Your task to perform on an android device: Search for the new nike shoes on Target Image 0: 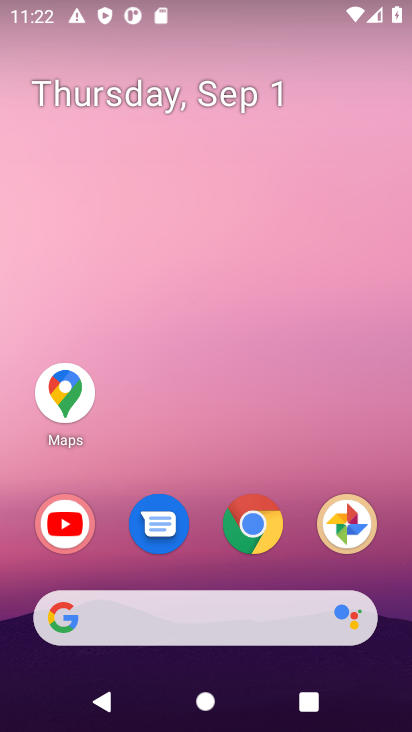
Step 0: click (256, 525)
Your task to perform on an android device: Search for the new nike shoes on Target Image 1: 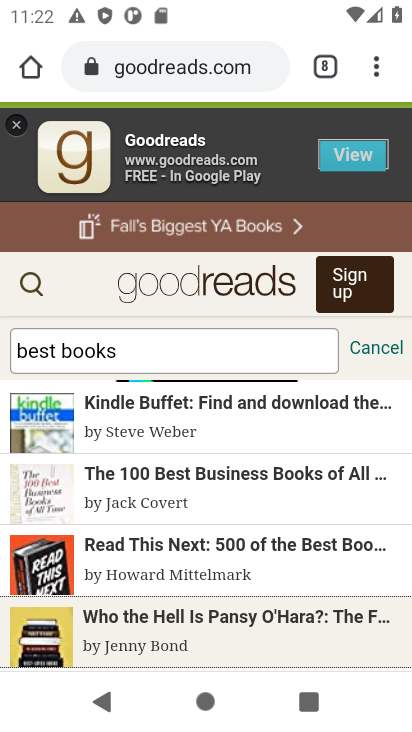
Step 1: click (327, 73)
Your task to perform on an android device: Search for the new nike shoes on Target Image 2: 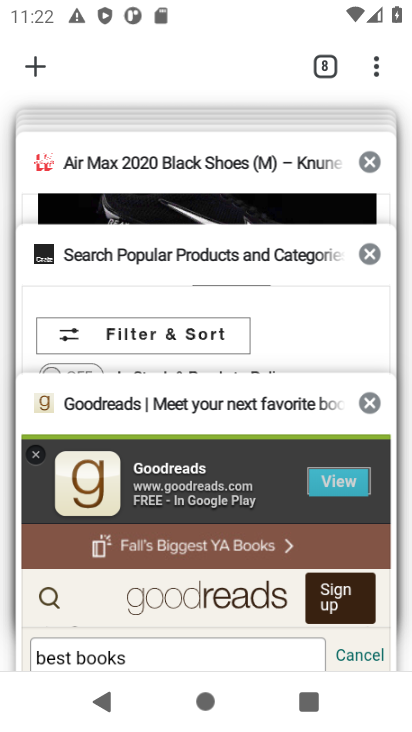
Step 2: drag from (89, 206) to (107, 477)
Your task to perform on an android device: Search for the new nike shoes on Target Image 3: 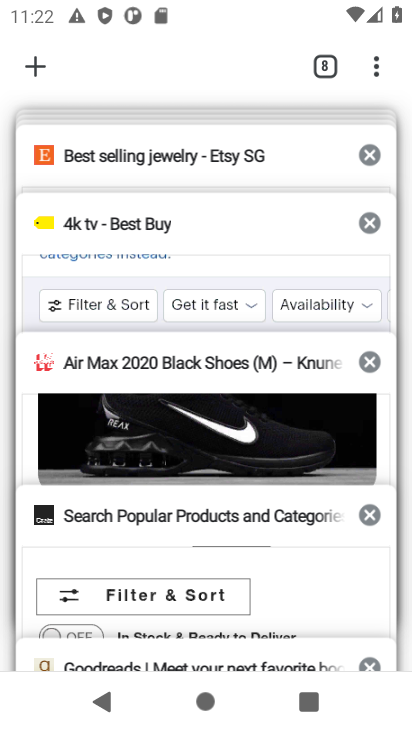
Step 3: drag from (150, 170) to (196, 494)
Your task to perform on an android device: Search for the new nike shoes on Target Image 4: 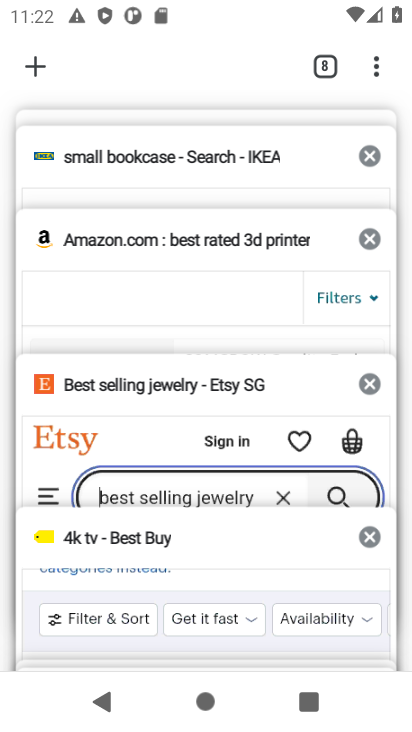
Step 4: click (34, 68)
Your task to perform on an android device: Search for the new nike shoes on Target Image 5: 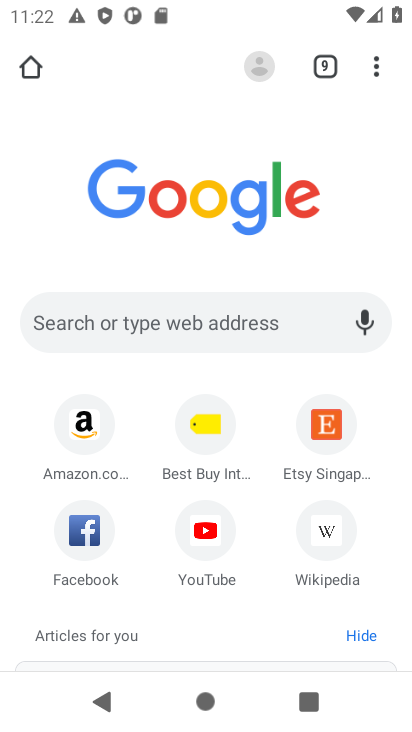
Step 5: click (204, 321)
Your task to perform on an android device: Search for the new nike shoes on Target Image 6: 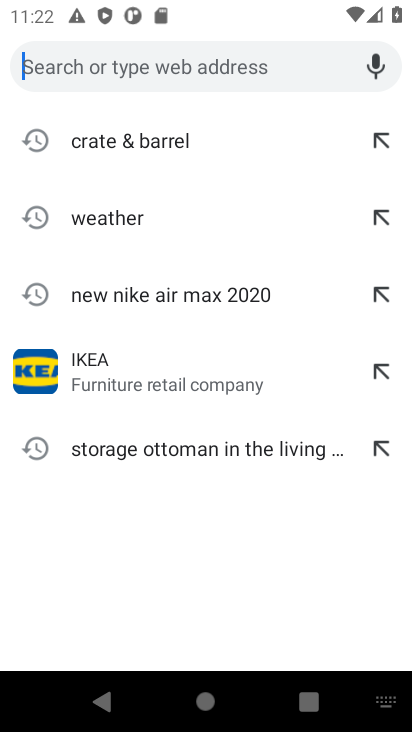
Step 6: type "target"
Your task to perform on an android device: Search for the new nike shoes on Target Image 7: 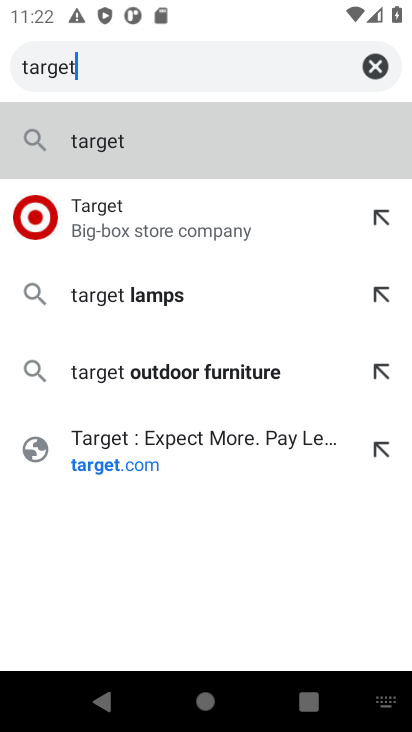
Step 7: click (144, 450)
Your task to perform on an android device: Search for the new nike shoes on Target Image 8: 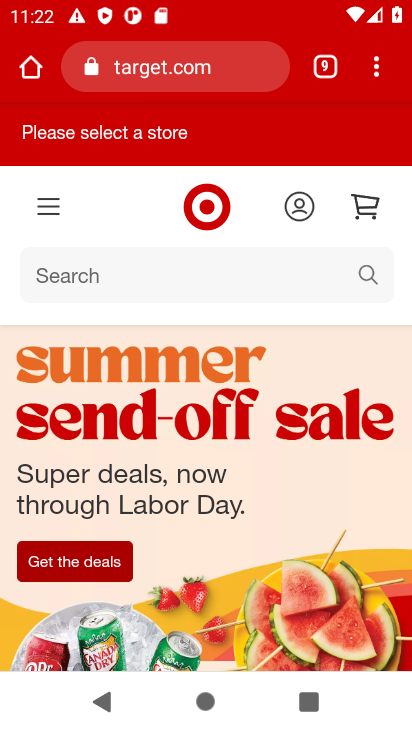
Step 8: click (292, 266)
Your task to perform on an android device: Search for the new nike shoes on Target Image 9: 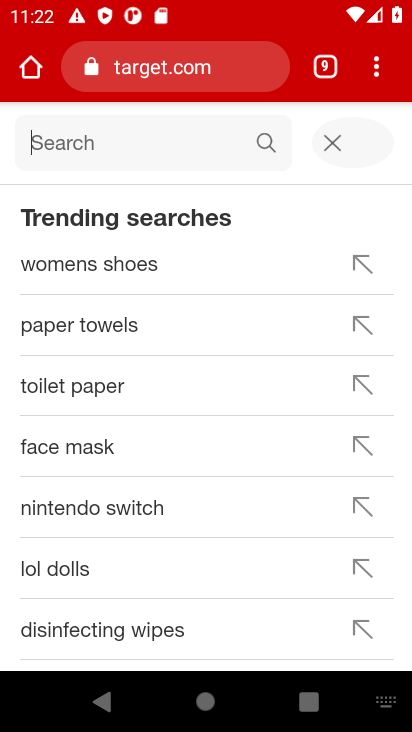
Step 9: type "nike shoes"
Your task to perform on an android device: Search for the new nike shoes on Target Image 10: 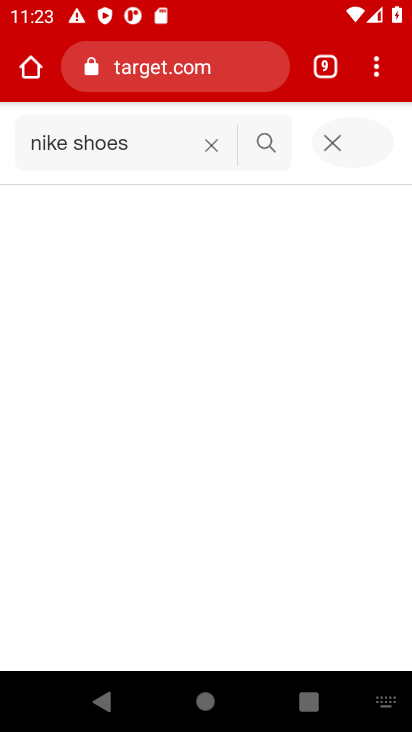
Step 10: click (262, 144)
Your task to perform on an android device: Search for the new nike shoes on Target Image 11: 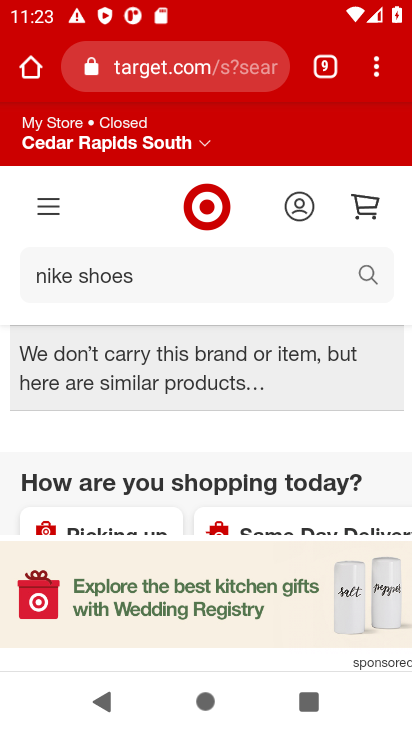
Step 11: drag from (237, 481) to (199, 265)
Your task to perform on an android device: Search for the new nike shoes on Target Image 12: 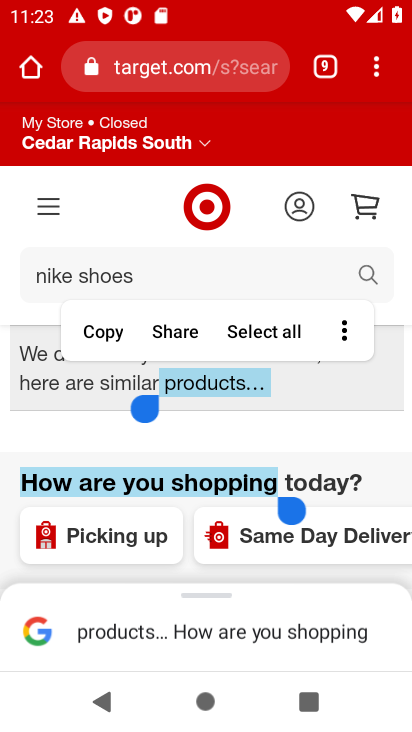
Step 12: click (297, 441)
Your task to perform on an android device: Search for the new nike shoes on Target Image 13: 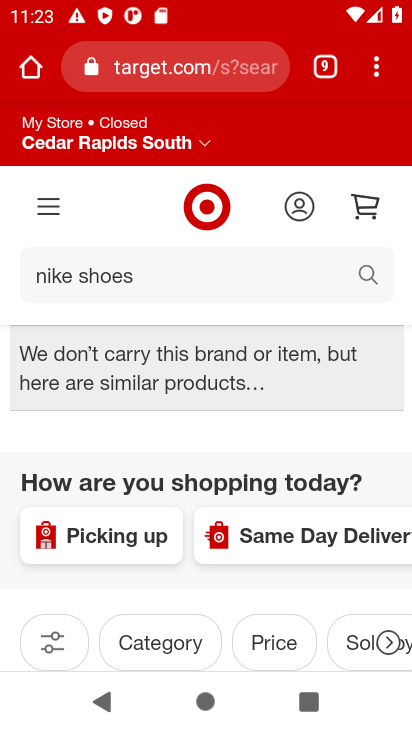
Step 13: drag from (297, 441) to (272, 196)
Your task to perform on an android device: Search for the new nike shoes on Target Image 14: 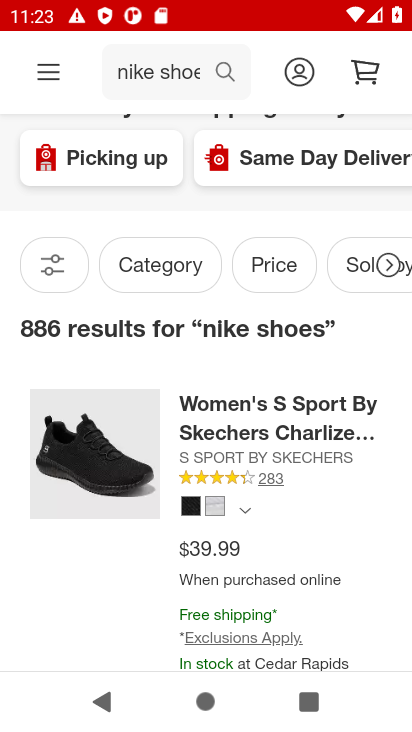
Step 14: click (49, 270)
Your task to perform on an android device: Search for the new nike shoes on Target Image 15: 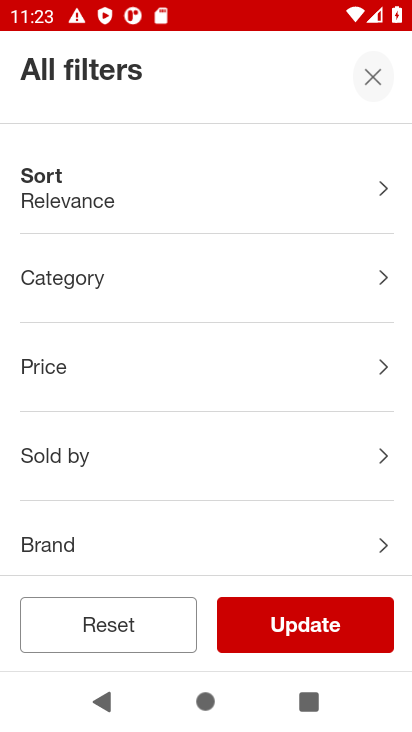
Step 15: click (384, 189)
Your task to perform on an android device: Search for the new nike shoes on Target Image 16: 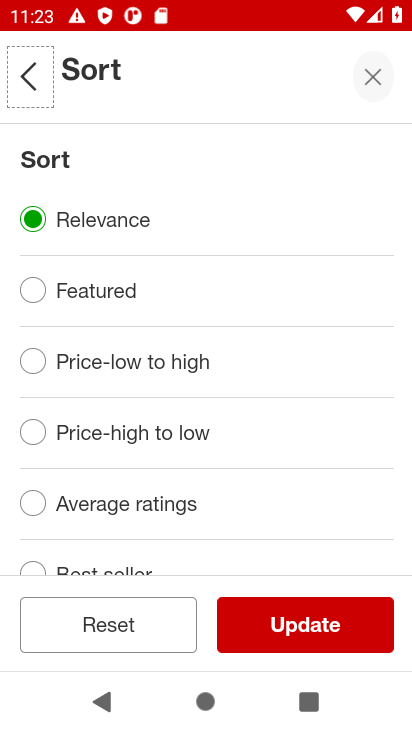
Step 16: drag from (236, 490) to (224, 266)
Your task to perform on an android device: Search for the new nike shoes on Target Image 17: 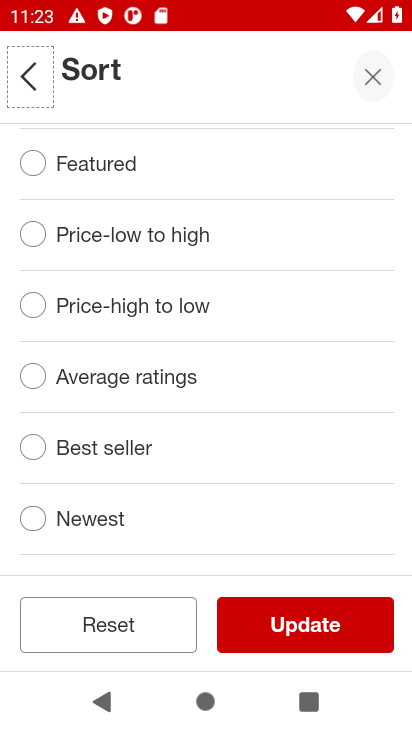
Step 17: click (32, 517)
Your task to perform on an android device: Search for the new nike shoes on Target Image 18: 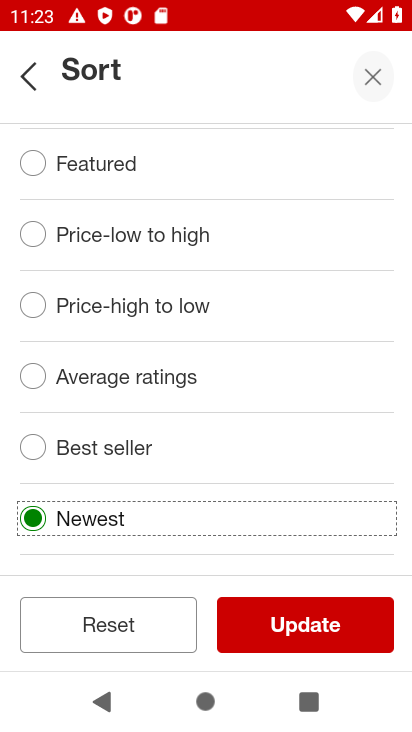
Step 18: click (270, 629)
Your task to perform on an android device: Search for the new nike shoes on Target Image 19: 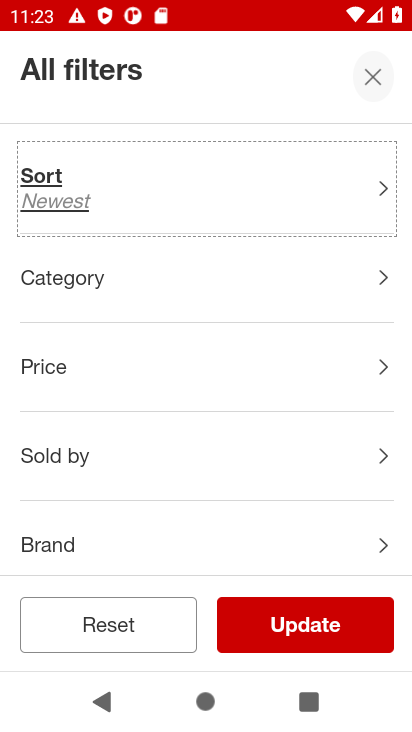
Step 19: click (270, 629)
Your task to perform on an android device: Search for the new nike shoes on Target Image 20: 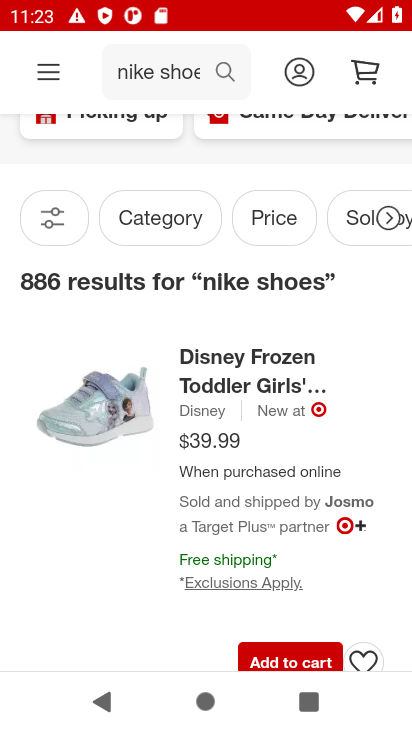
Step 20: task complete